Your task to perform on an android device: change the clock style Image 0: 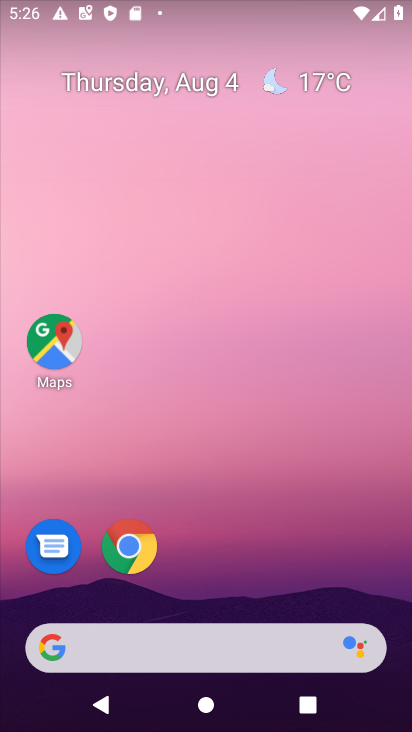
Step 0: drag from (173, 579) to (183, 222)
Your task to perform on an android device: change the clock style Image 1: 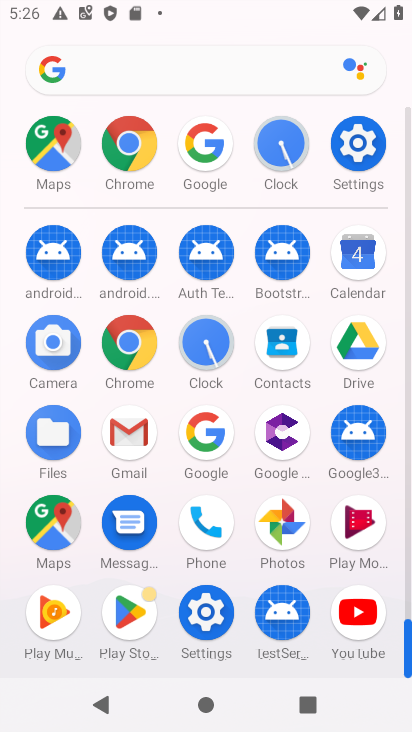
Step 1: click (210, 353)
Your task to perform on an android device: change the clock style Image 2: 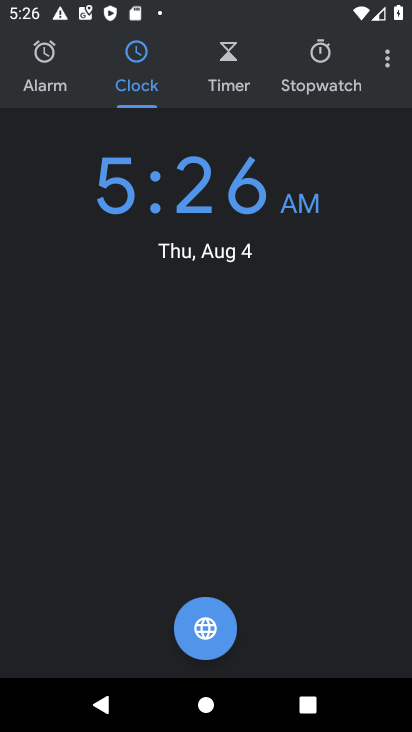
Step 2: click (389, 60)
Your task to perform on an android device: change the clock style Image 3: 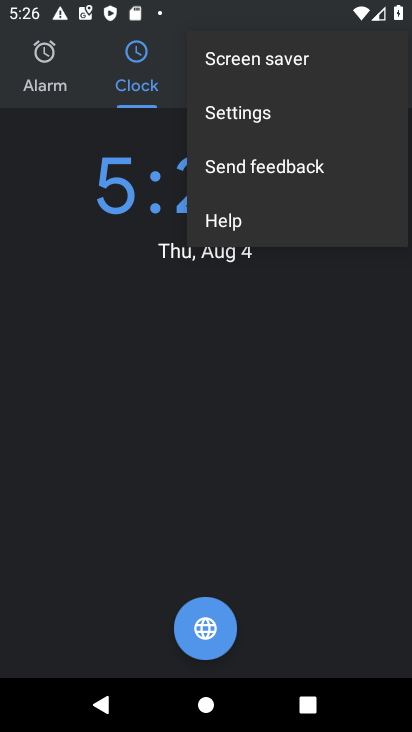
Step 3: click (254, 115)
Your task to perform on an android device: change the clock style Image 4: 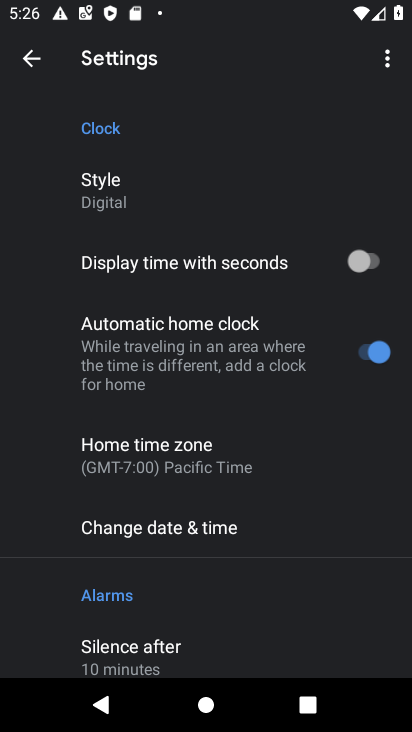
Step 4: click (108, 201)
Your task to perform on an android device: change the clock style Image 5: 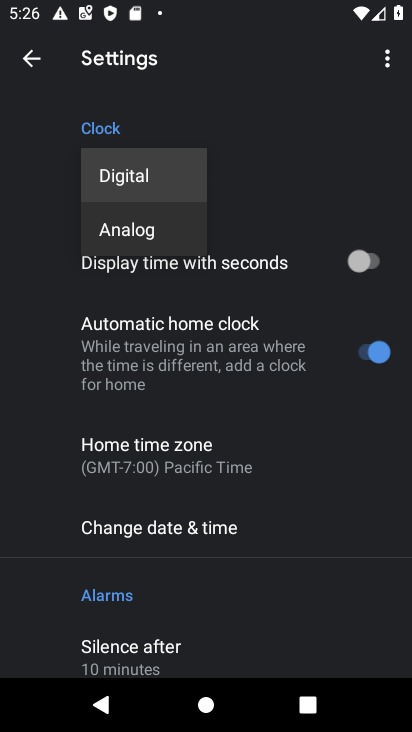
Step 5: click (112, 228)
Your task to perform on an android device: change the clock style Image 6: 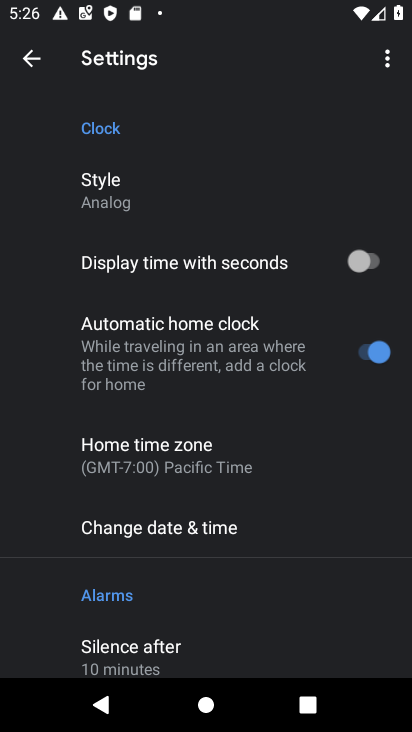
Step 6: task complete